Your task to perform on an android device: install app "Clock" Image 0: 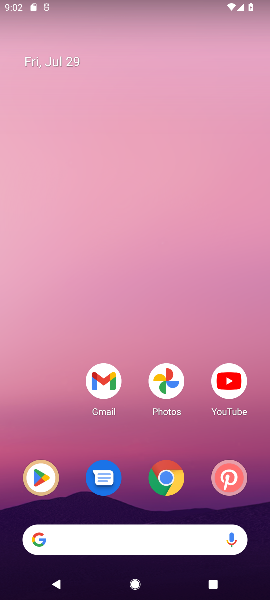
Step 0: drag from (57, 452) to (126, 1)
Your task to perform on an android device: install app "Clock" Image 1: 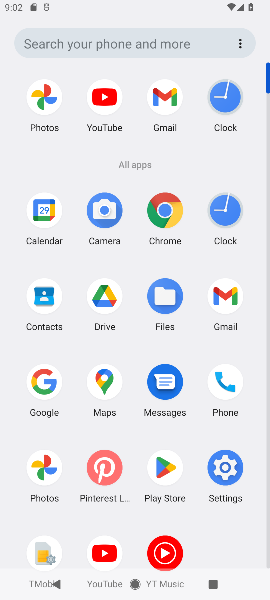
Step 1: click (226, 94)
Your task to perform on an android device: install app "Clock" Image 2: 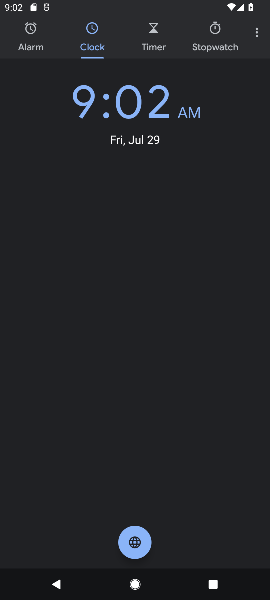
Step 2: task complete